Your task to perform on an android device: Go to calendar. Show me events next week Image 0: 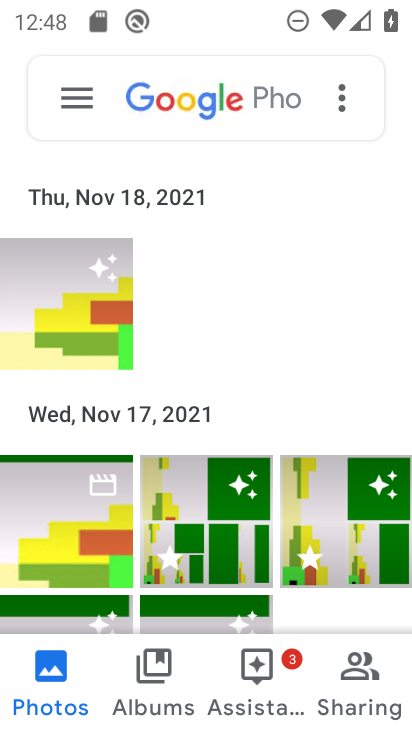
Step 0: press home button
Your task to perform on an android device: Go to calendar. Show me events next week Image 1: 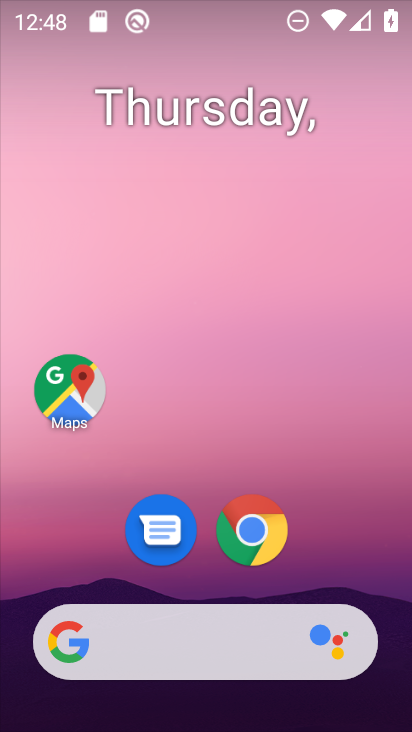
Step 1: drag from (221, 629) to (226, 113)
Your task to perform on an android device: Go to calendar. Show me events next week Image 2: 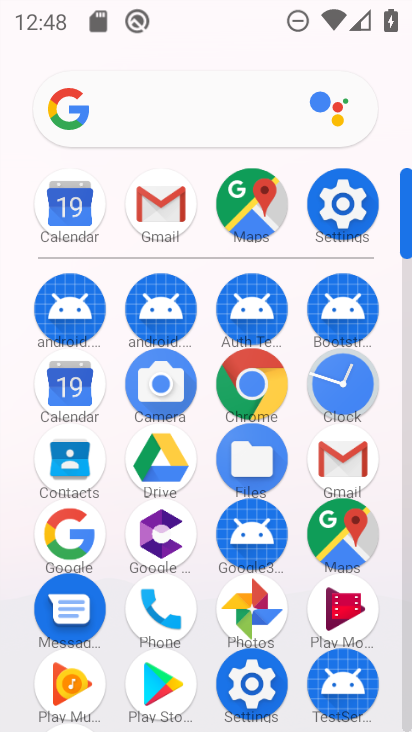
Step 2: click (68, 384)
Your task to perform on an android device: Go to calendar. Show me events next week Image 3: 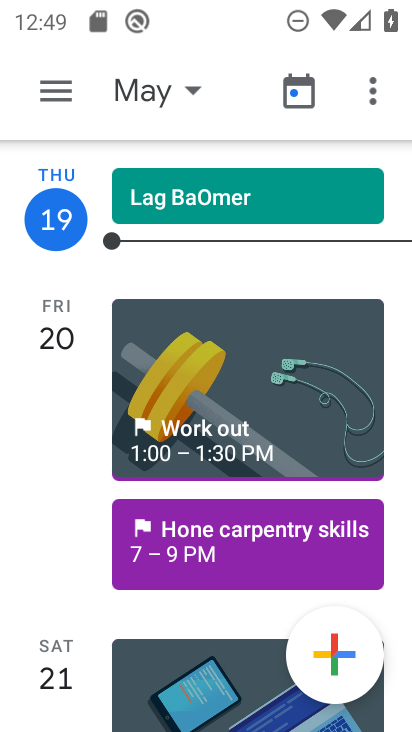
Step 3: click (49, 91)
Your task to perform on an android device: Go to calendar. Show me events next week Image 4: 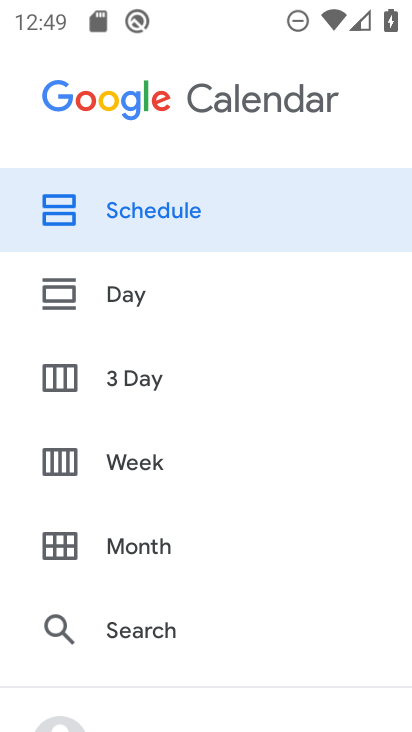
Step 4: click (136, 470)
Your task to perform on an android device: Go to calendar. Show me events next week Image 5: 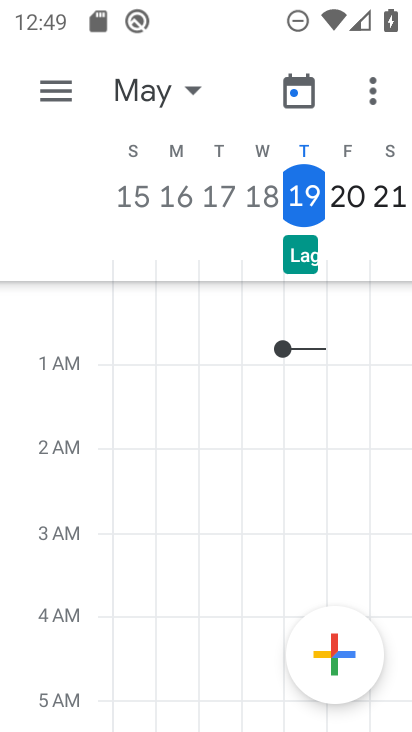
Step 5: task complete